Your task to perform on an android device: Go to Wikipedia Image 0: 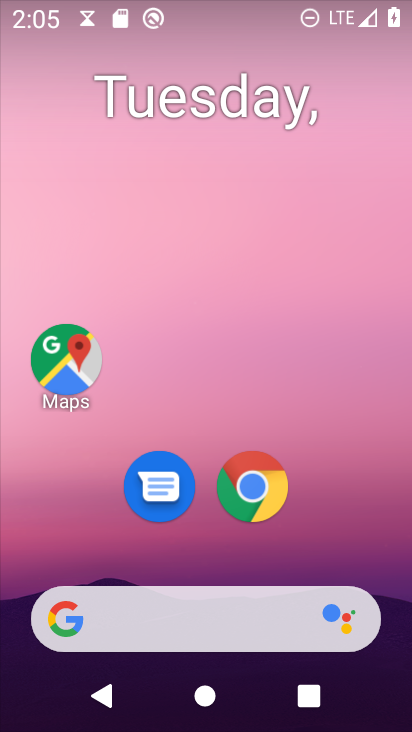
Step 0: drag from (216, 398) to (225, 140)
Your task to perform on an android device: Go to Wikipedia Image 1: 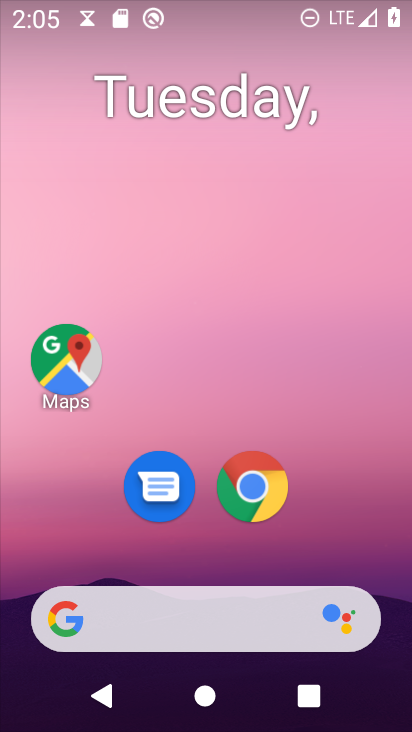
Step 1: drag from (218, 560) to (208, 17)
Your task to perform on an android device: Go to Wikipedia Image 2: 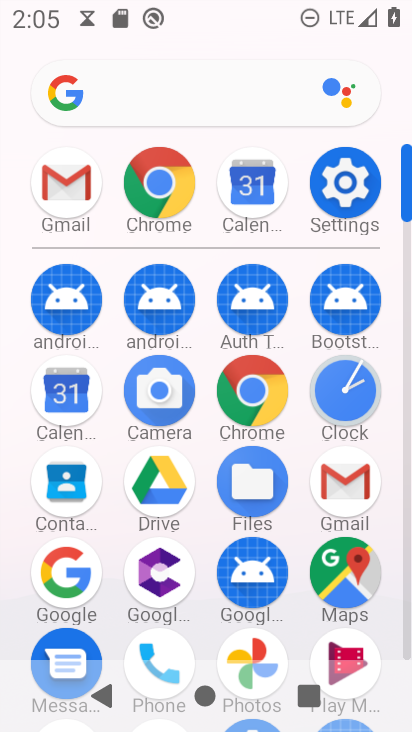
Step 2: click (264, 398)
Your task to perform on an android device: Go to Wikipedia Image 3: 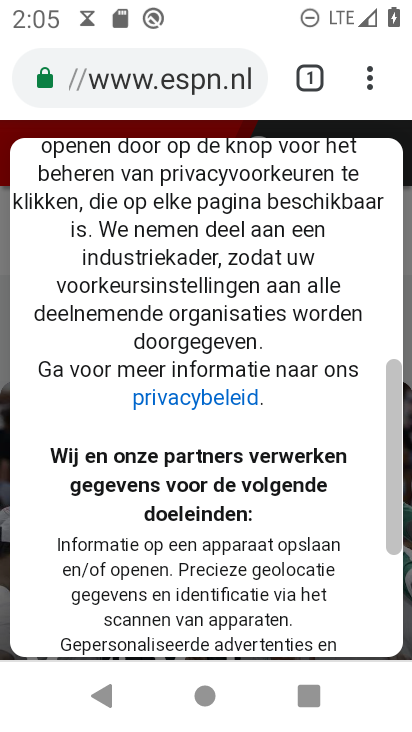
Step 3: click (304, 84)
Your task to perform on an android device: Go to Wikipedia Image 4: 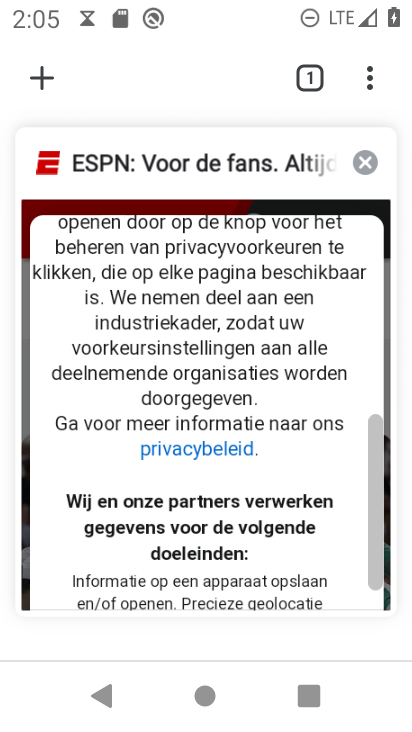
Step 4: click (41, 80)
Your task to perform on an android device: Go to Wikipedia Image 5: 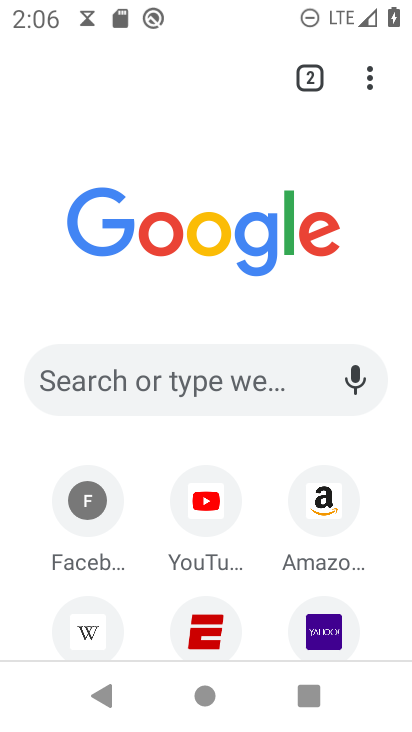
Step 5: click (74, 629)
Your task to perform on an android device: Go to Wikipedia Image 6: 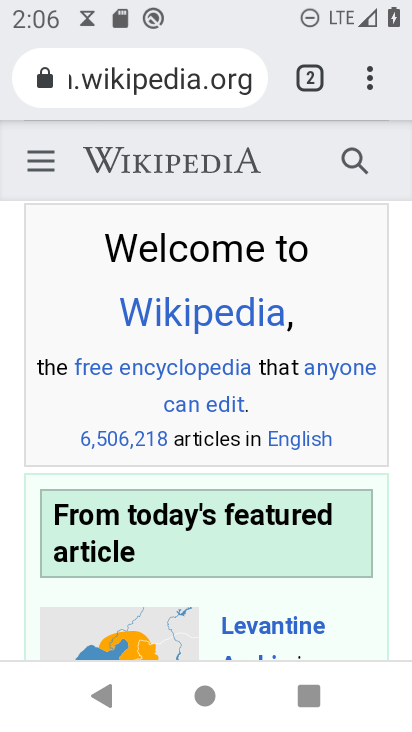
Step 6: task complete